Your task to perform on an android device: Search for vegetarian restaurants on Maps Image 0: 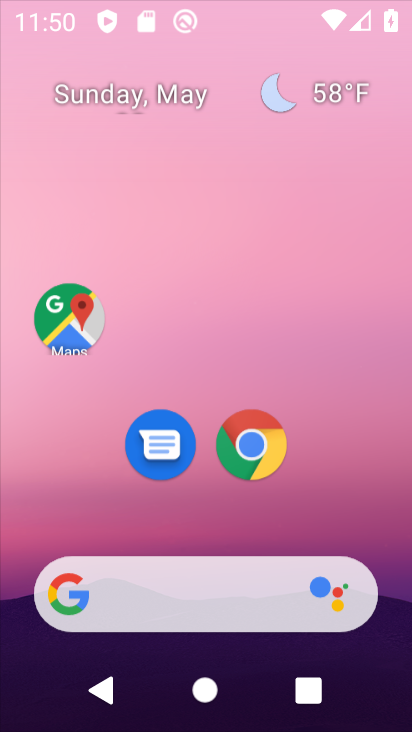
Step 0: press home button
Your task to perform on an android device: Search for vegetarian restaurants on Maps Image 1: 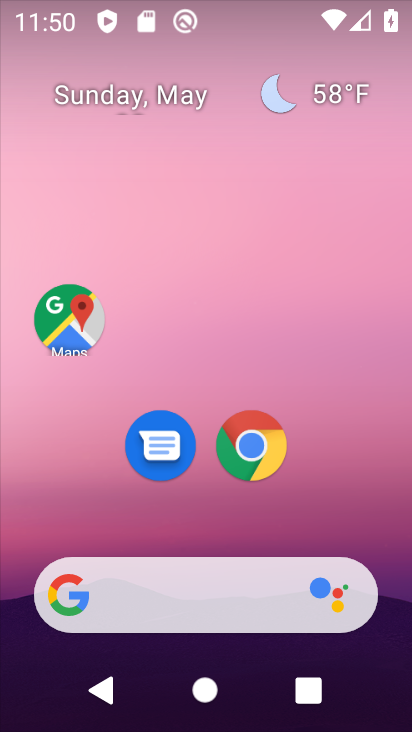
Step 1: drag from (215, 532) to (239, 118)
Your task to perform on an android device: Search for vegetarian restaurants on Maps Image 2: 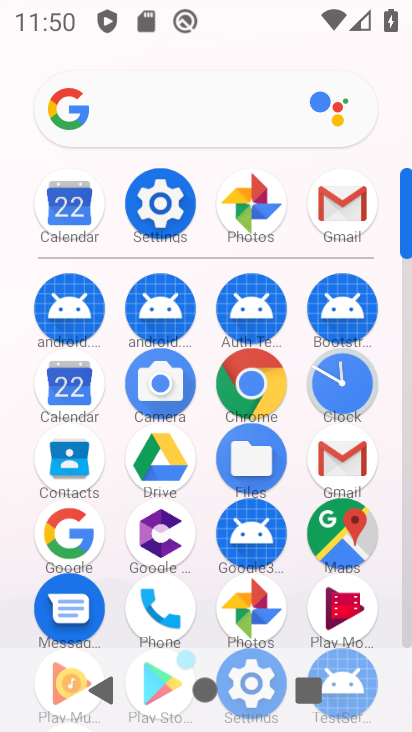
Step 2: click (341, 525)
Your task to perform on an android device: Search for vegetarian restaurants on Maps Image 3: 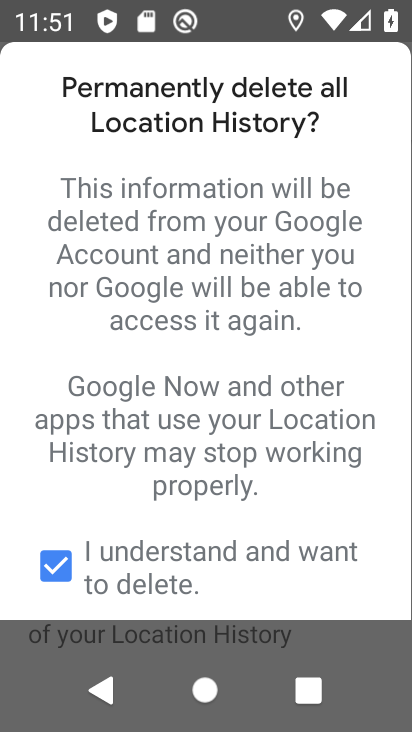
Step 3: press back button
Your task to perform on an android device: Search for vegetarian restaurants on Maps Image 4: 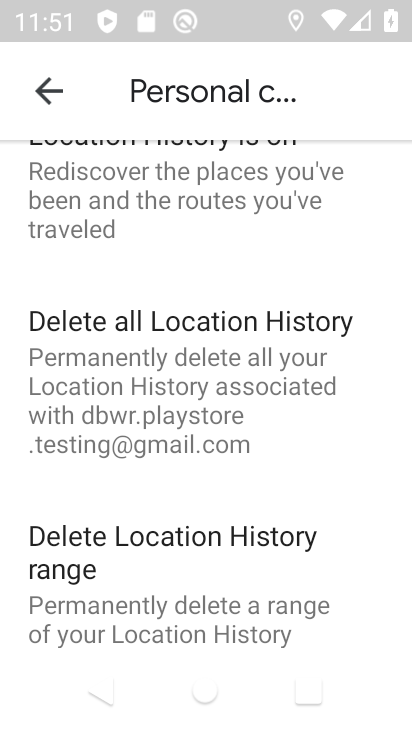
Step 4: click (44, 97)
Your task to perform on an android device: Search for vegetarian restaurants on Maps Image 5: 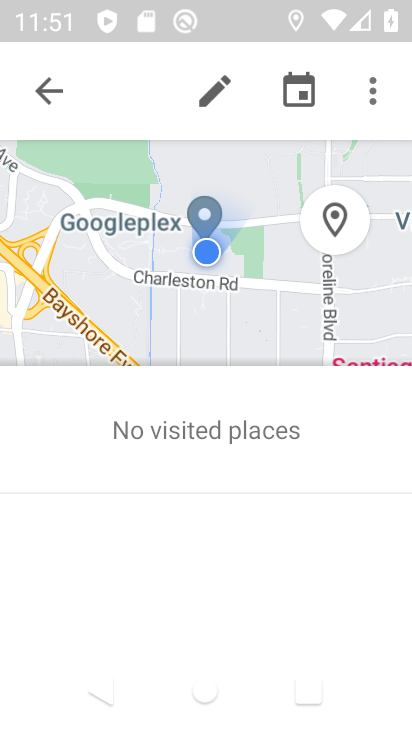
Step 5: click (53, 94)
Your task to perform on an android device: Search for vegetarian restaurants on Maps Image 6: 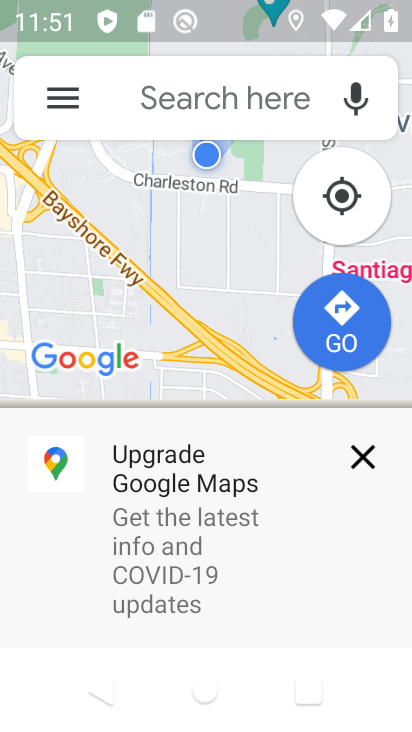
Step 6: click (360, 461)
Your task to perform on an android device: Search for vegetarian restaurants on Maps Image 7: 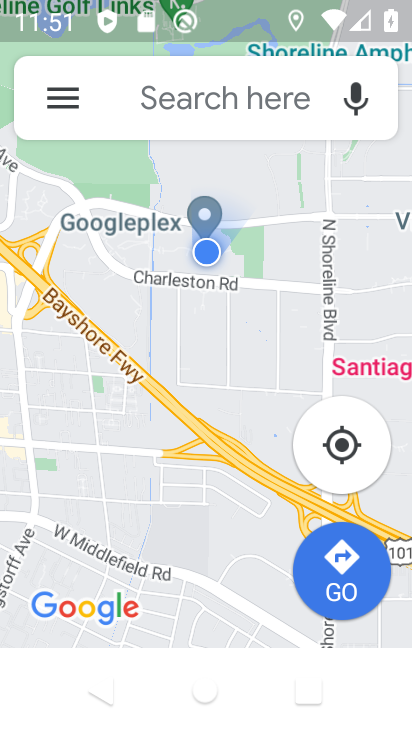
Step 7: click (154, 98)
Your task to perform on an android device: Search for vegetarian restaurants on Maps Image 8: 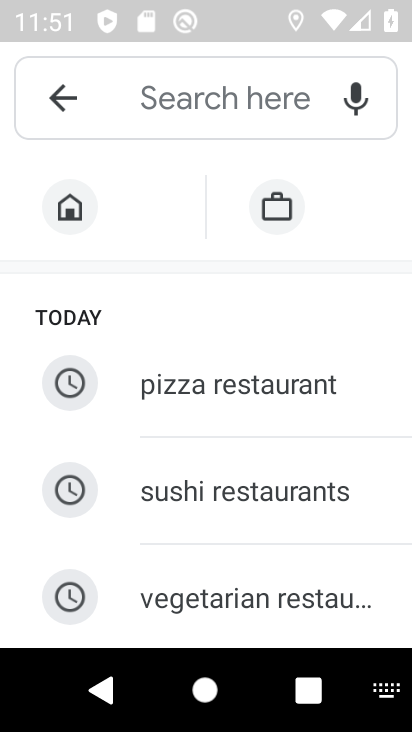
Step 8: click (251, 585)
Your task to perform on an android device: Search for vegetarian restaurants on Maps Image 9: 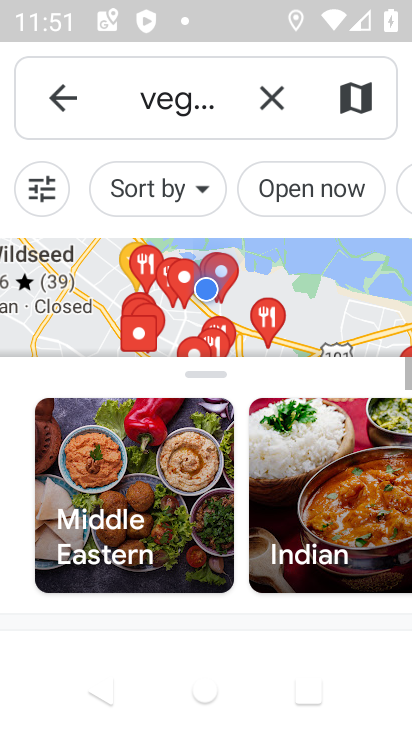
Step 9: task complete